Your task to perform on an android device: Go to Maps Image 0: 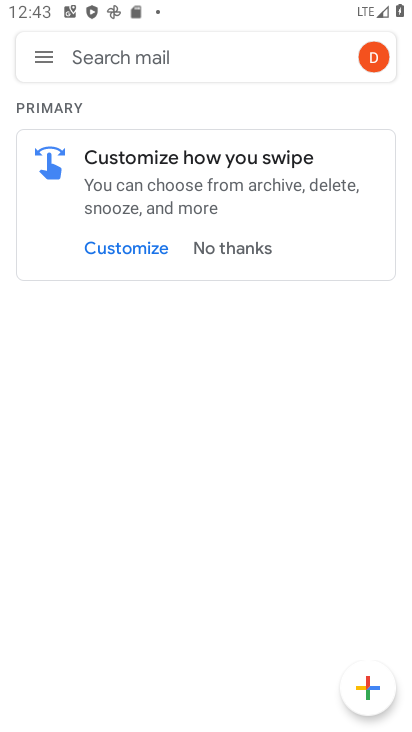
Step 0: press home button
Your task to perform on an android device: Go to Maps Image 1: 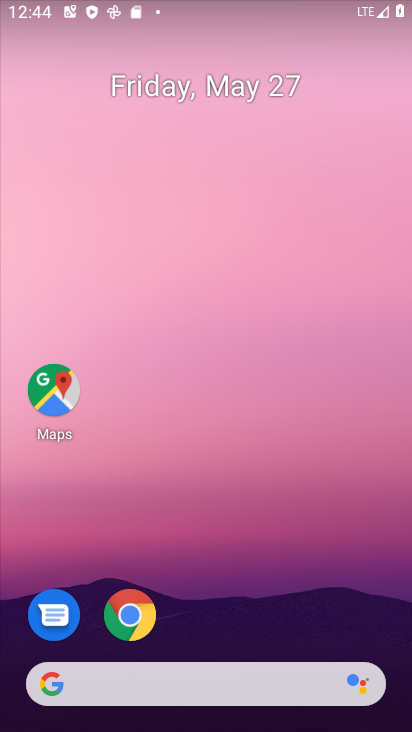
Step 1: drag from (152, 558) to (224, 23)
Your task to perform on an android device: Go to Maps Image 2: 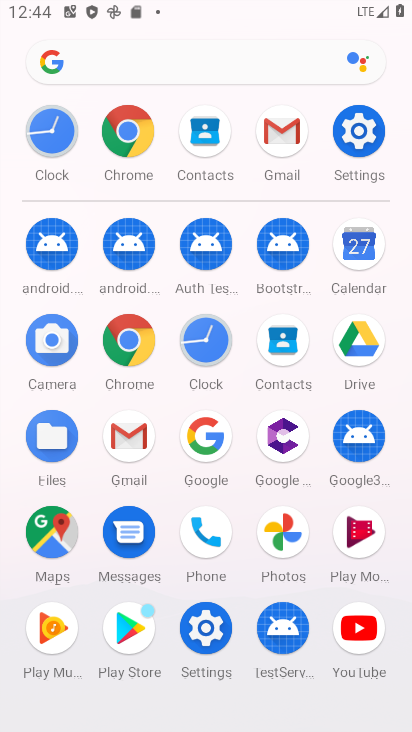
Step 2: click (34, 529)
Your task to perform on an android device: Go to Maps Image 3: 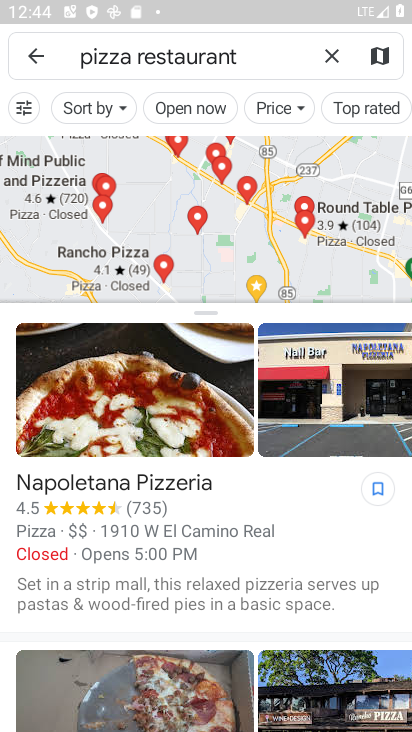
Step 3: task complete